Your task to perform on an android device: change notifications settings Image 0: 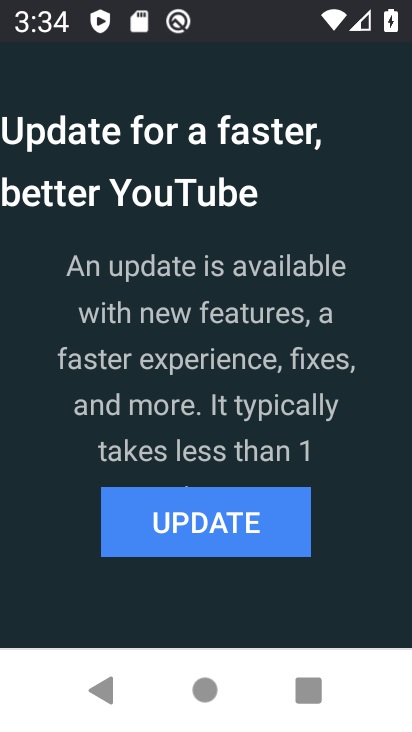
Step 0: press home button
Your task to perform on an android device: change notifications settings Image 1: 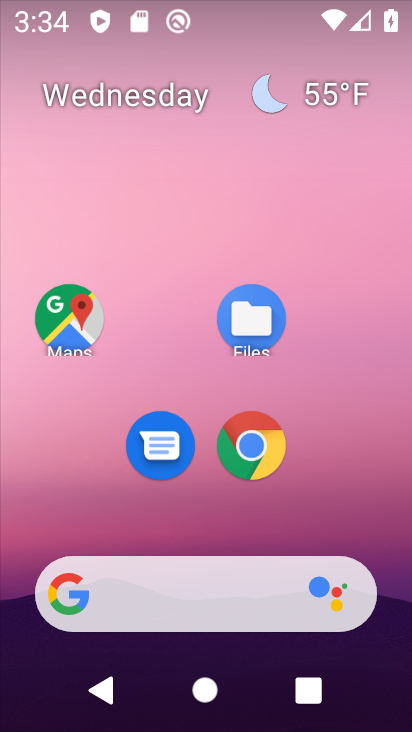
Step 1: drag from (337, 499) to (296, 68)
Your task to perform on an android device: change notifications settings Image 2: 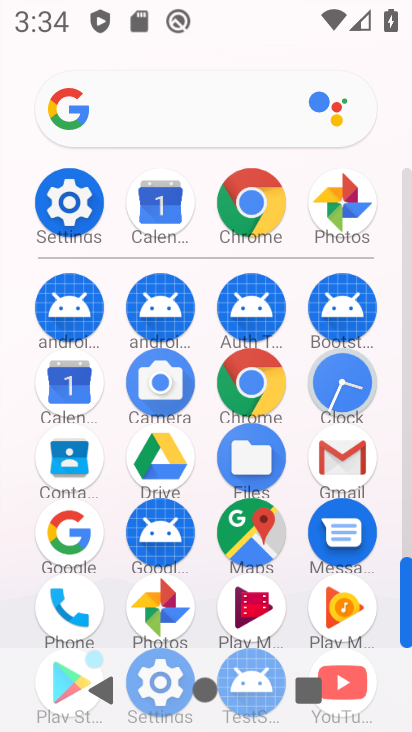
Step 2: drag from (212, 628) to (169, 114)
Your task to perform on an android device: change notifications settings Image 3: 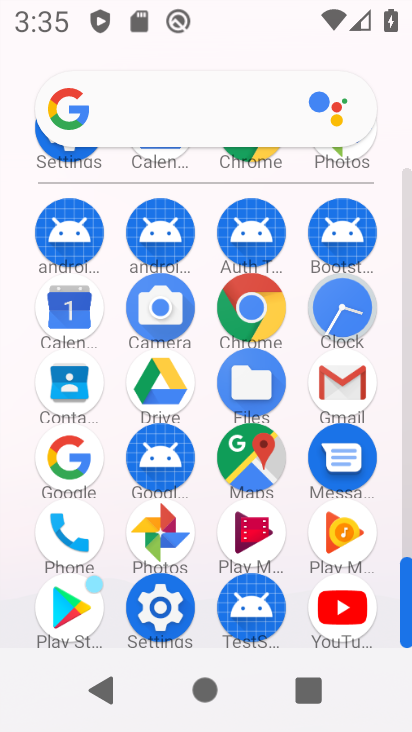
Step 3: click (167, 595)
Your task to perform on an android device: change notifications settings Image 4: 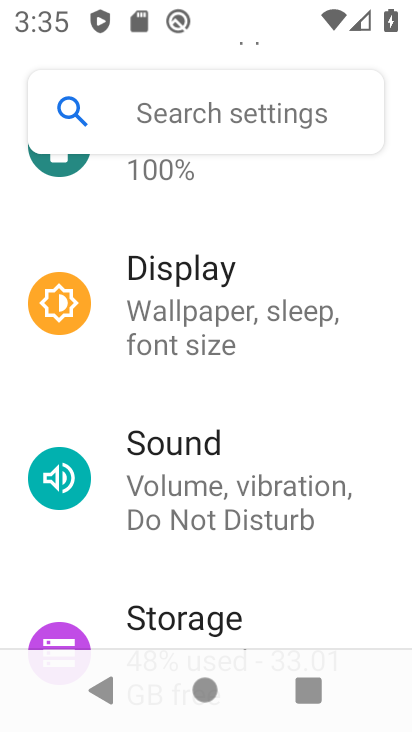
Step 4: drag from (196, 291) to (402, 707)
Your task to perform on an android device: change notifications settings Image 5: 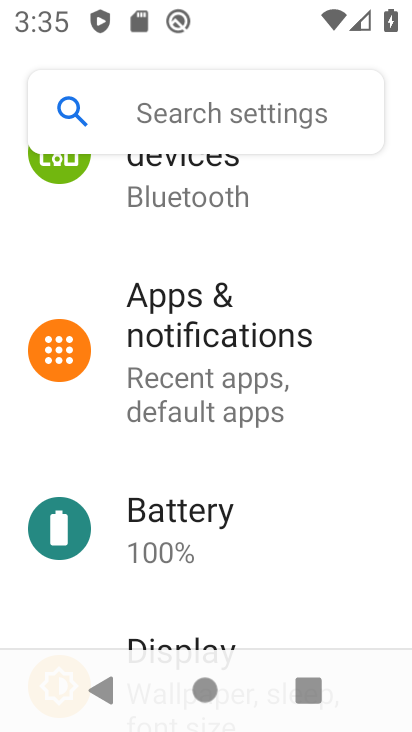
Step 5: click (210, 314)
Your task to perform on an android device: change notifications settings Image 6: 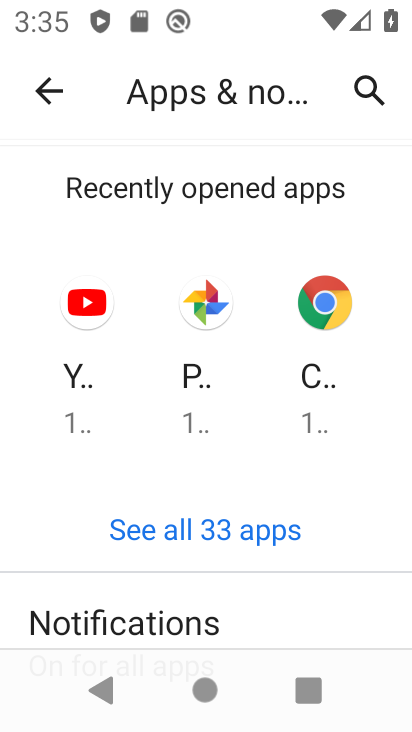
Step 6: click (174, 625)
Your task to perform on an android device: change notifications settings Image 7: 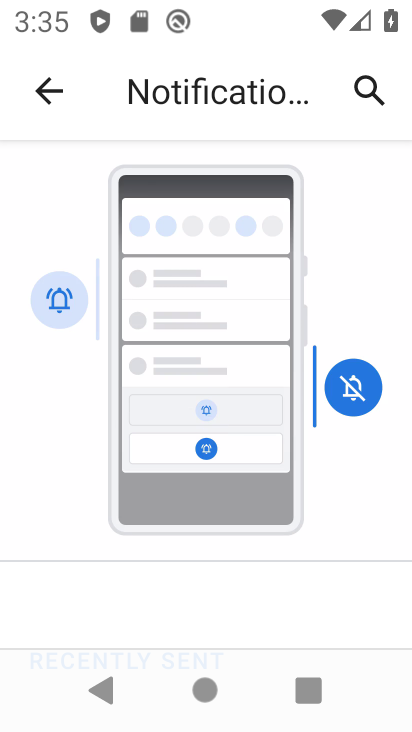
Step 7: drag from (174, 625) to (257, 207)
Your task to perform on an android device: change notifications settings Image 8: 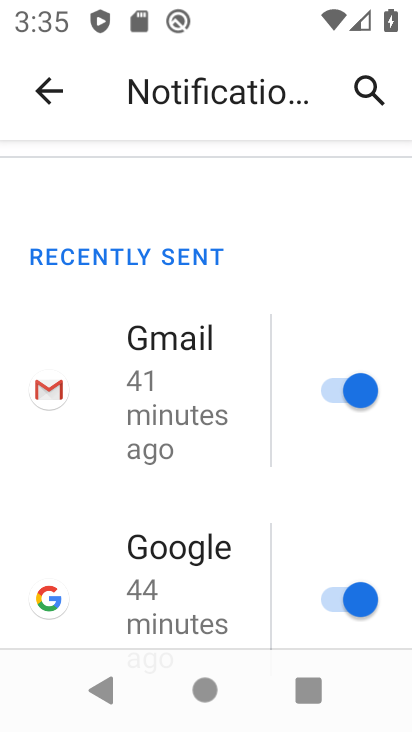
Step 8: drag from (212, 605) to (198, 428)
Your task to perform on an android device: change notifications settings Image 9: 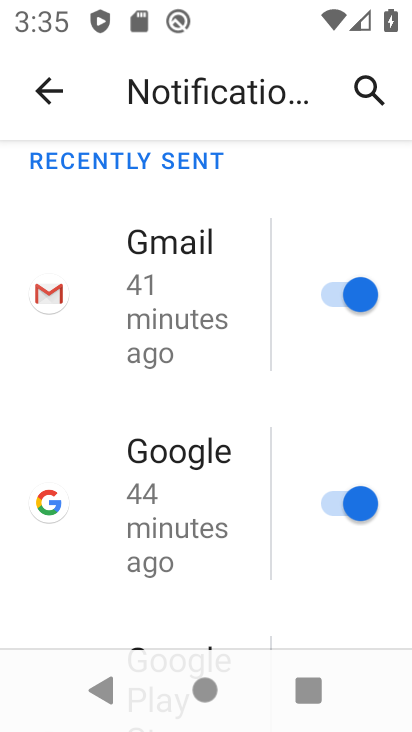
Step 9: click (175, 437)
Your task to perform on an android device: change notifications settings Image 10: 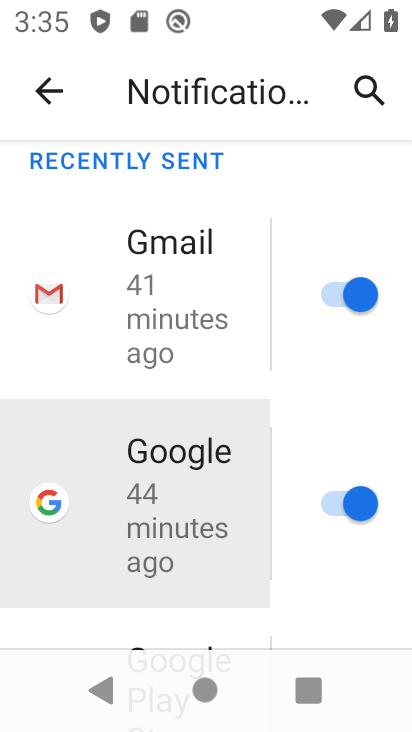
Step 10: click (175, 437)
Your task to perform on an android device: change notifications settings Image 11: 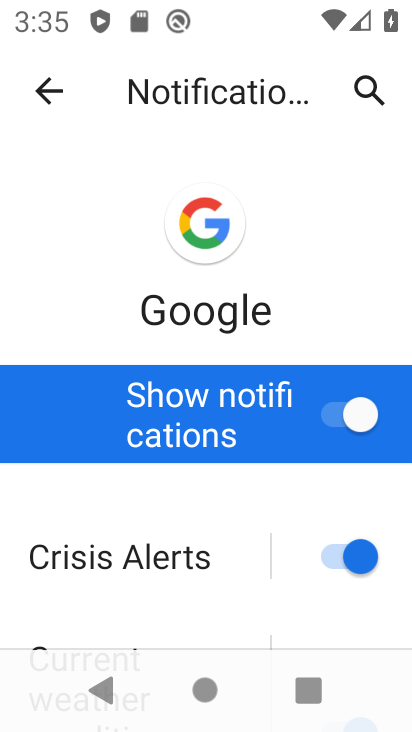
Step 11: click (326, 414)
Your task to perform on an android device: change notifications settings Image 12: 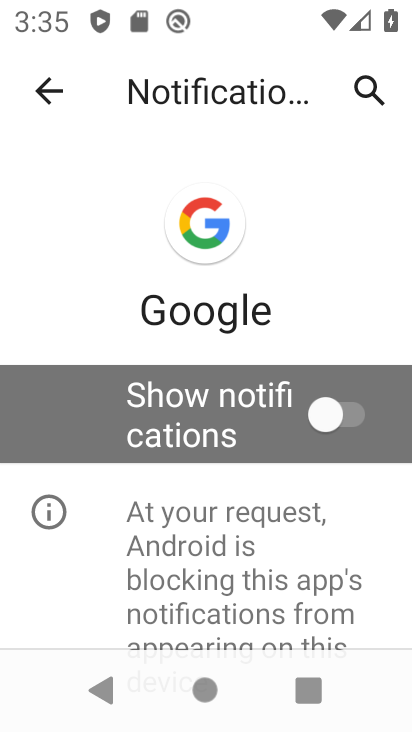
Step 12: task complete